Your task to perform on an android device: Show me popular games on the Play Store Image 0: 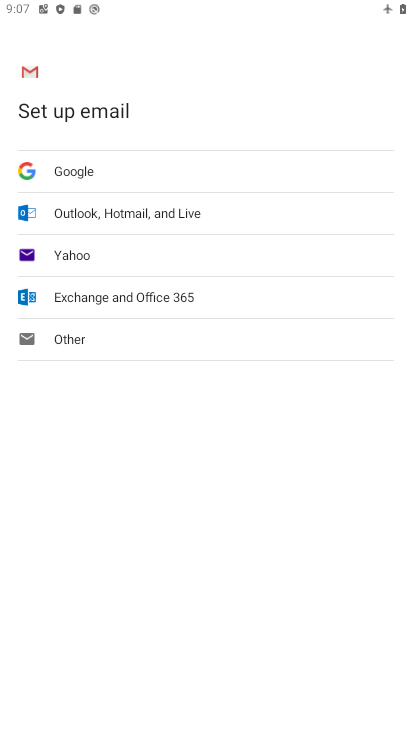
Step 0: press home button
Your task to perform on an android device: Show me popular games on the Play Store Image 1: 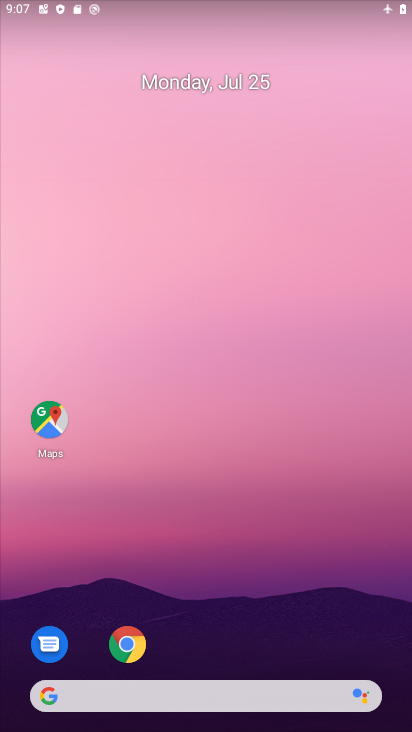
Step 1: drag from (272, 516) to (201, 65)
Your task to perform on an android device: Show me popular games on the Play Store Image 2: 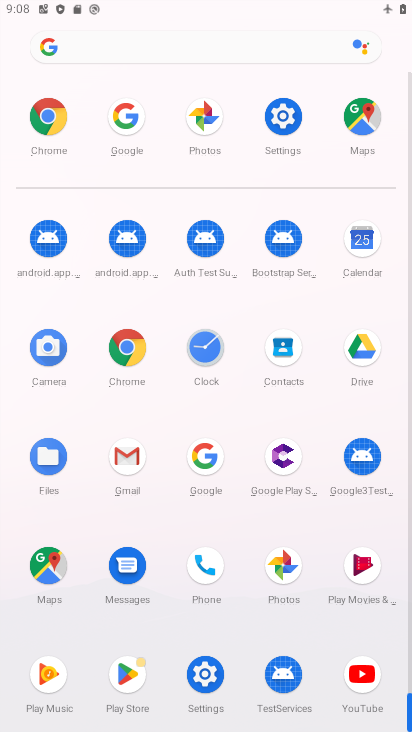
Step 2: click (138, 667)
Your task to perform on an android device: Show me popular games on the Play Store Image 3: 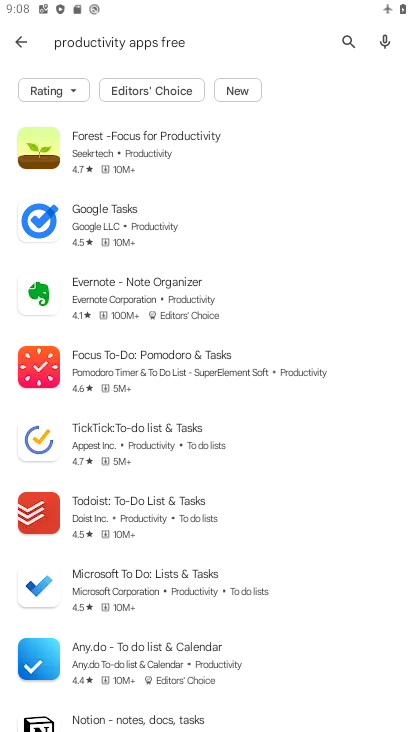
Step 3: task complete